Your task to perform on an android device: see sites visited before in the chrome app Image 0: 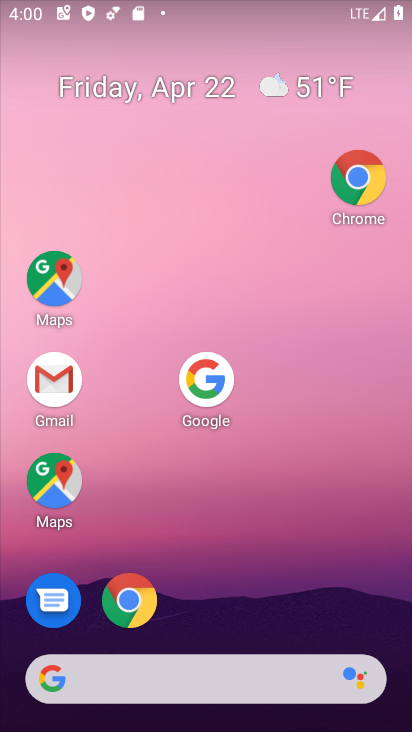
Step 0: drag from (267, 600) to (228, 105)
Your task to perform on an android device: see sites visited before in the chrome app Image 1: 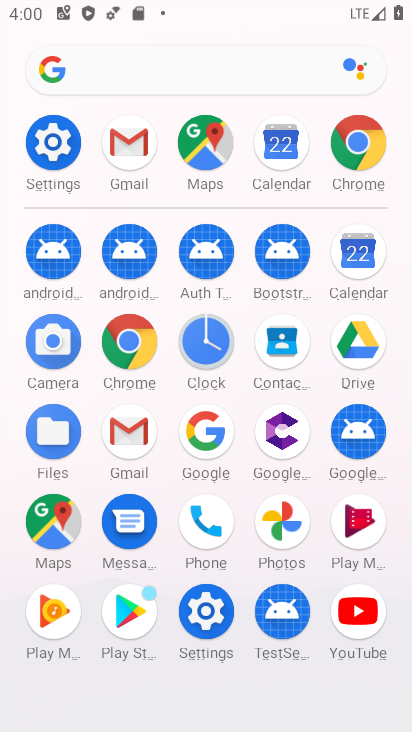
Step 1: click (365, 140)
Your task to perform on an android device: see sites visited before in the chrome app Image 2: 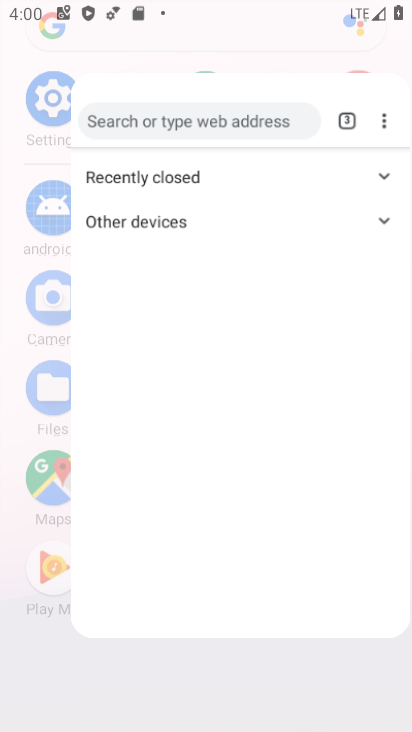
Step 2: click (371, 146)
Your task to perform on an android device: see sites visited before in the chrome app Image 3: 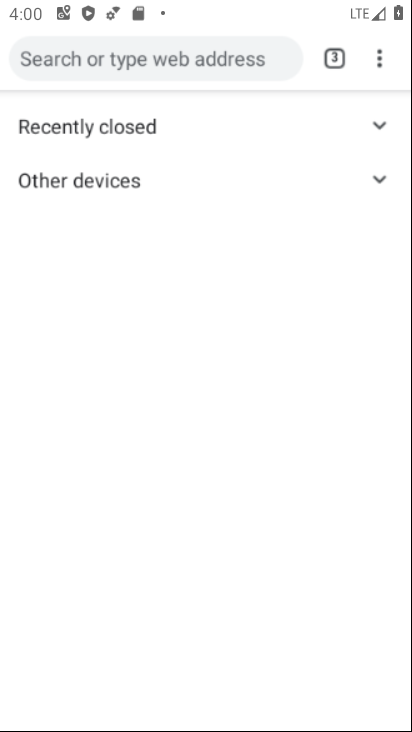
Step 3: click (371, 146)
Your task to perform on an android device: see sites visited before in the chrome app Image 4: 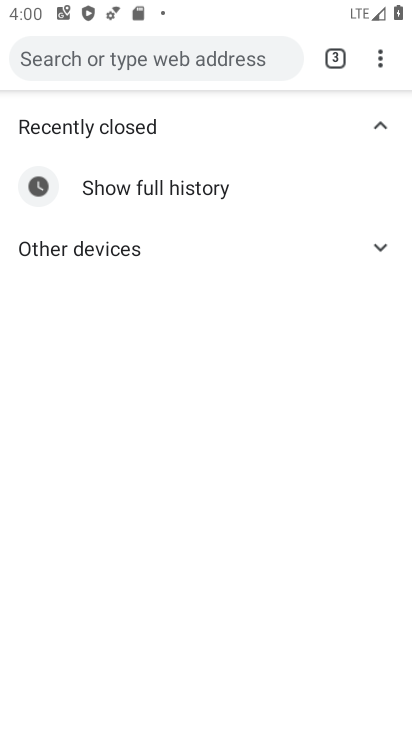
Step 4: press home button
Your task to perform on an android device: see sites visited before in the chrome app Image 5: 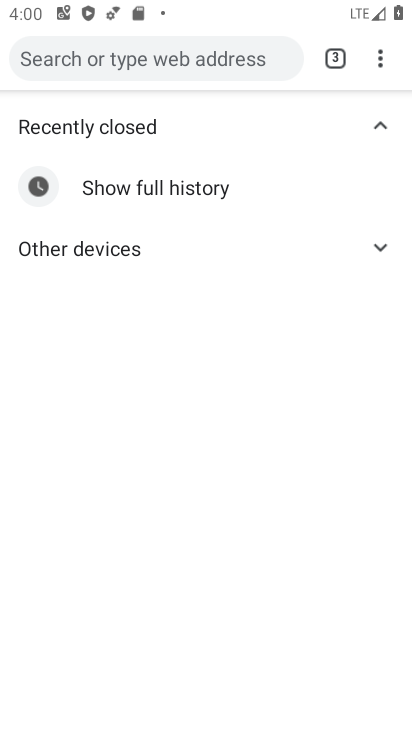
Step 5: press home button
Your task to perform on an android device: see sites visited before in the chrome app Image 6: 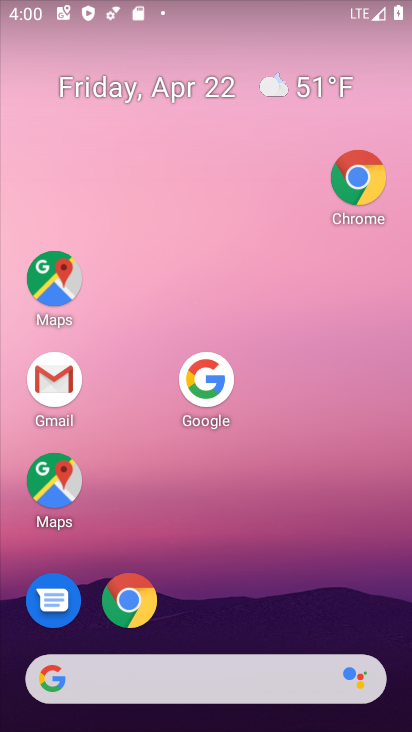
Step 6: drag from (266, 567) to (174, 30)
Your task to perform on an android device: see sites visited before in the chrome app Image 7: 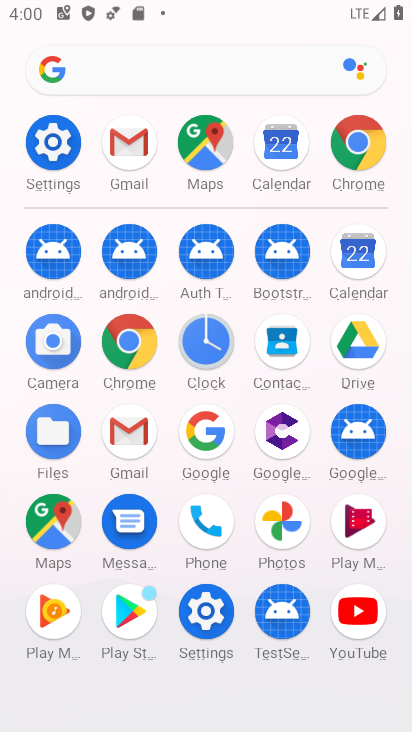
Step 7: drag from (253, 513) to (189, 20)
Your task to perform on an android device: see sites visited before in the chrome app Image 8: 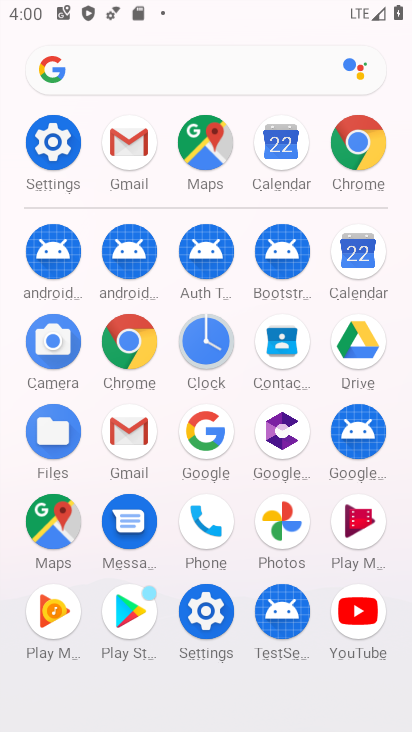
Step 8: click (365, 144)
Your task to perform on an android device: see sites visited before in the chrome app Image 9: 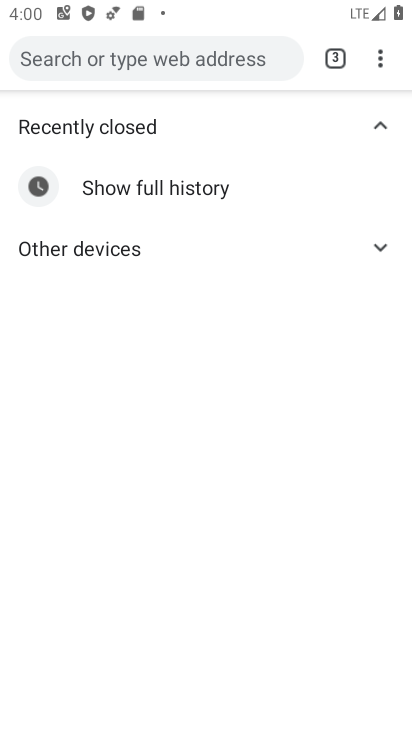
Step 9: drag from (375, 56) to (171, 278)
Your task to perform on an android device: see sites visited before in the chrome app Image 10: 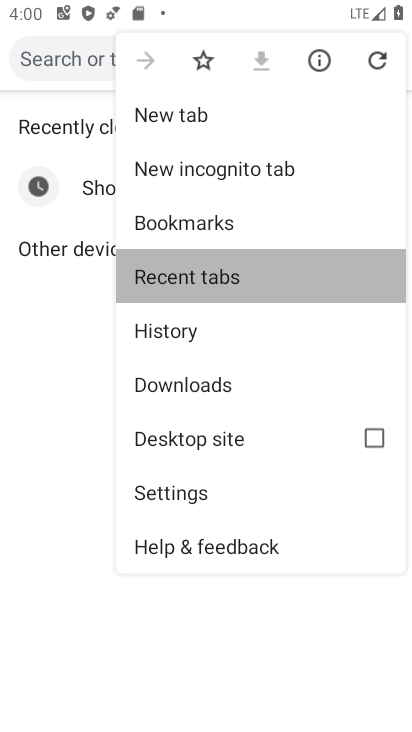
Step 10: click (172, 279)
Your task to perform on an android device: see sites visited before in the chrome app Image 11: 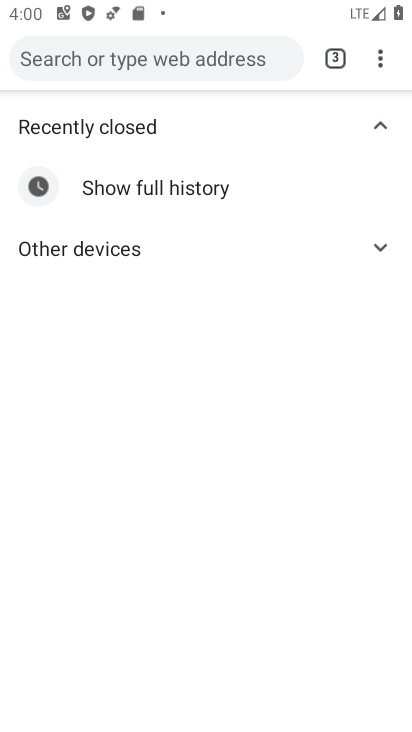
Step 11: click (173, 279)
Your task to perform on an android device: see sites visited before in the chrome app Image 12: 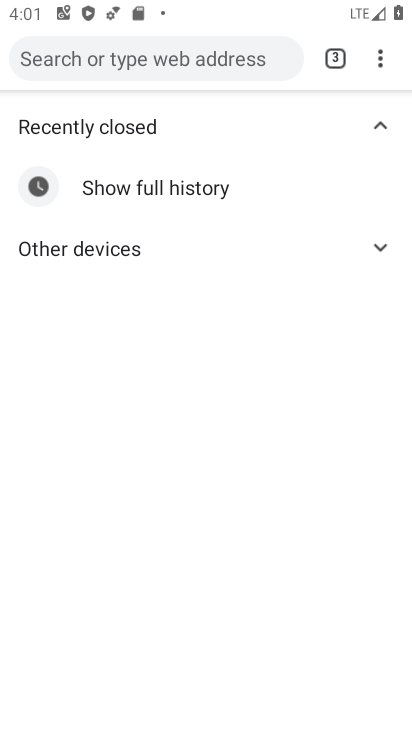
Step 12: drag from (374, 54) to (188, 276)
Your task to perform on an android device: see sites visited before in the chrome app Image 13: 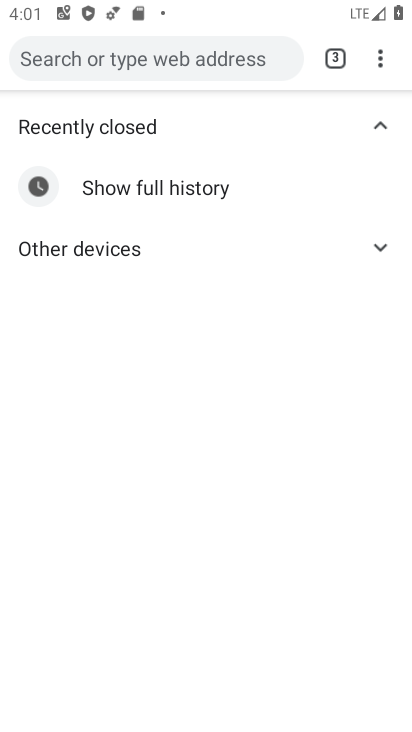
Step 13: click (186, 277)
Your task to perform on an android device: see sites visited before in the chrome app Image 14: 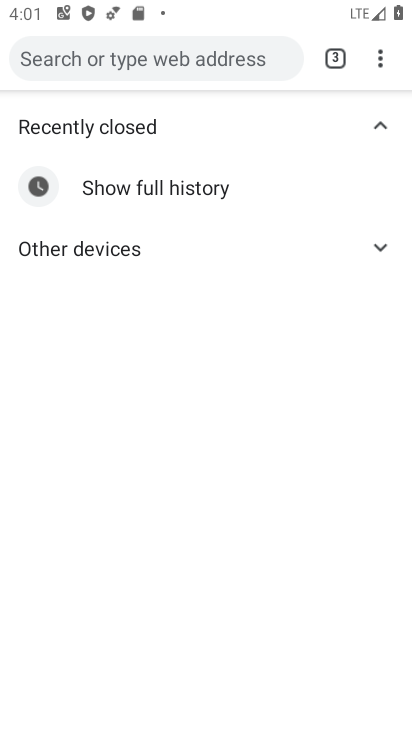
Step 14: task complete